Your task to perform on an android device: Search for the best selling vase on Crate & Barrel Image 0: 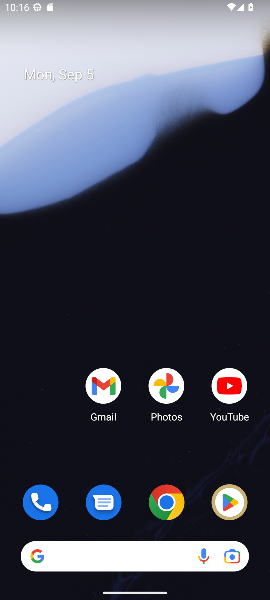
Step 0: drag from (266, 486) to (232, 19)
Your task to perform on an android device: Search for the best selling vase on Crate & Barrel Image 1: 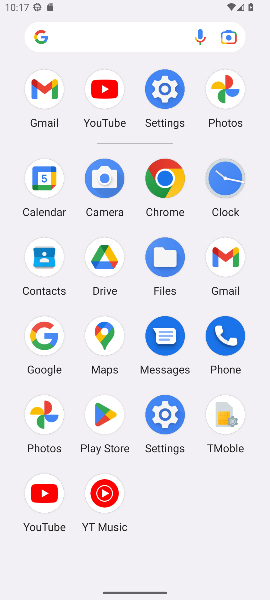
Step 1: click (39, 328)
Your task to perform on an android device: Search for the best selling vase on Crate & Barrel Image 2: 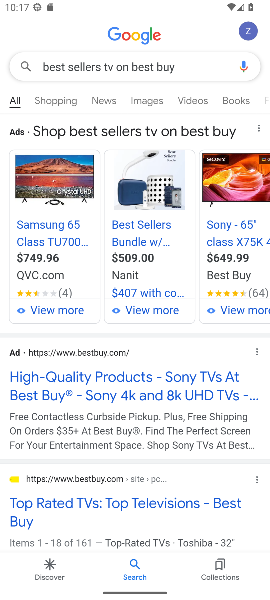
Step 2: press back button
Your task to perform on an android device: Search for the best selling vase on Crate & Barrel Image 3: 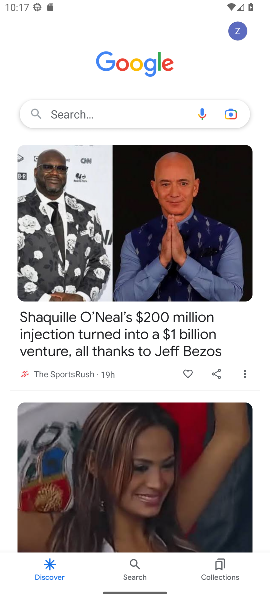
Step 3: click (86, 109)
Your task to perform on an android device: Search for the best selling vase on Crate & Barrel Image 4: 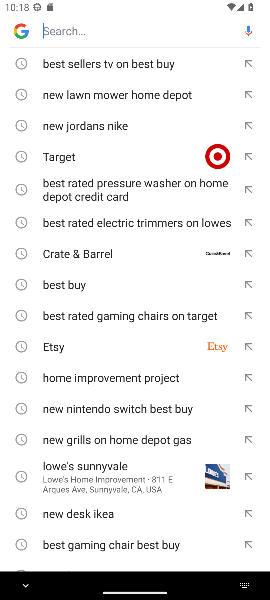
Step 4: type "best selling vase on Crate & Barrel"
Your task to perform on an android device: Search for the best selling vase on Crate & Barrel Image 5: 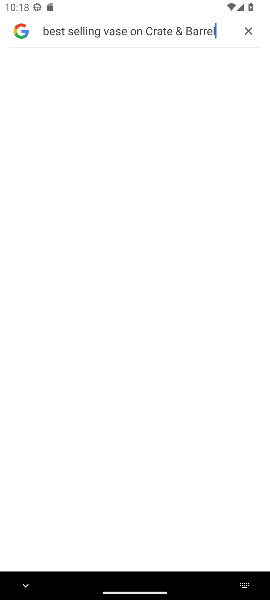
Step 5: task complete